Your task to perform on an android device: Open location settings Image 0: 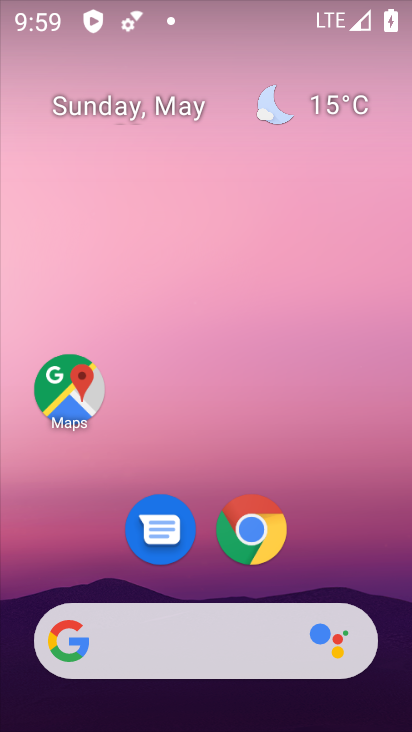
Step 0: drag from (316, 564) to (358, 20)
Your task to perform on an android device: Open location settings Image 1: 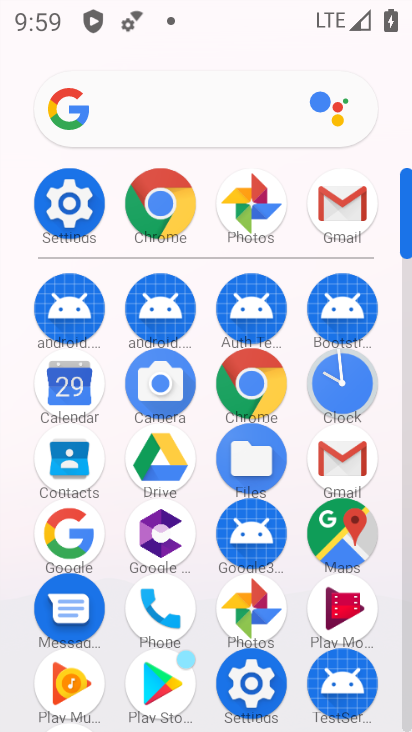
Step 1: click (84, 192)
Your task to perform on an android device: Open location settings Image 2: 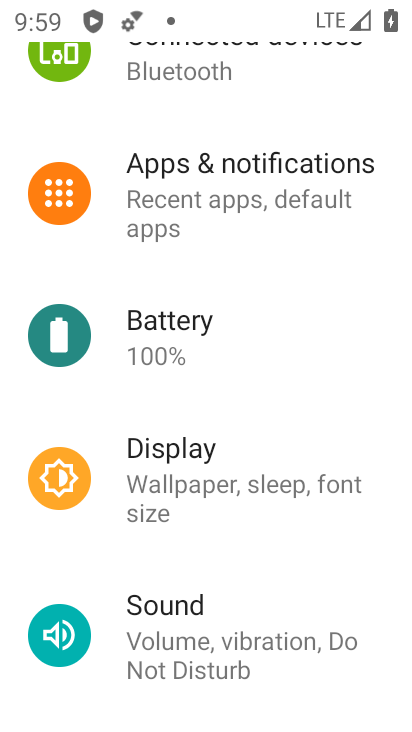
Step 2: drag from (326, 568) to (344, 28)
Your task to perform on an android device: Open location settings Image 3: 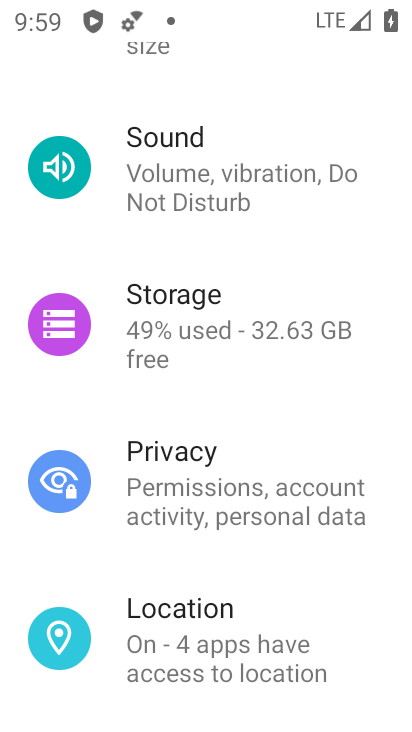
Step 3: click (282, 663)
Your task to perform on an android device: Open location settings Image 4: 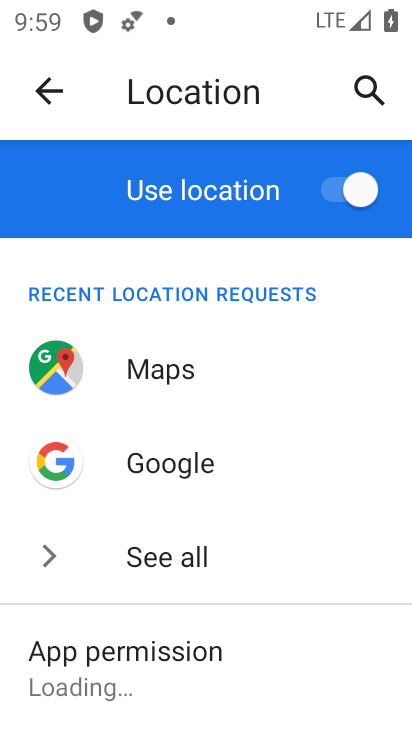
Step 4: click (354, 179)
Your task to perform on an android device: Open location settings Image 5: 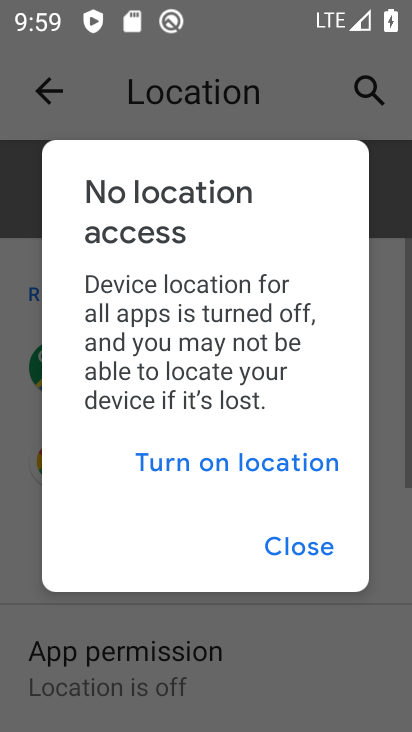
Step 5: task complete